Your task to perform on an android device: Open settings on Google Maps Image 0: 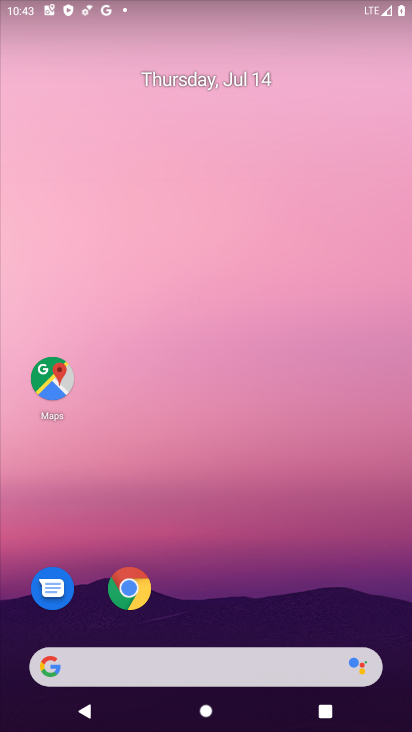
Step 0: click (60, 379)
Your task to perform on an android device: Open settings on Google Maps Image 1: 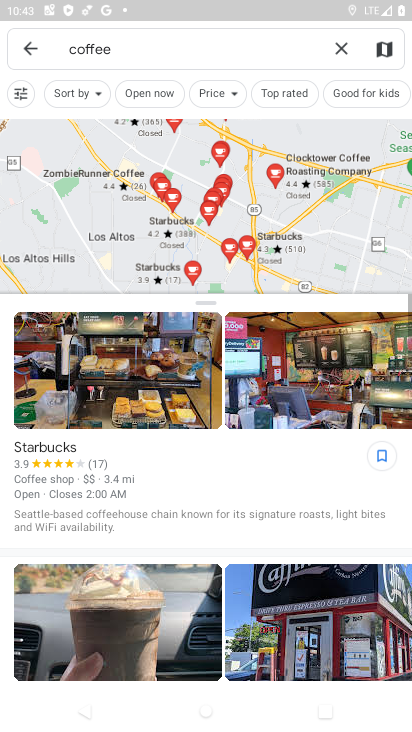
Step 1: click (29, 48)
Your task to perform on an android device: Open settings on Google Maps Image 2: 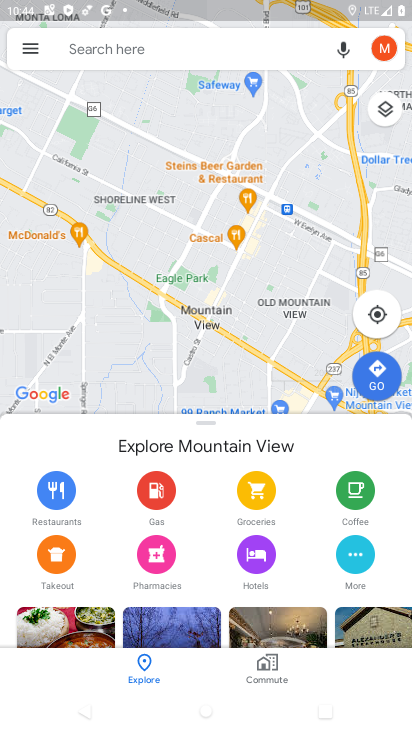
Step 2: click (29, 49)
Your task to perform on an android device: Open settings on Google Maps Image 3: 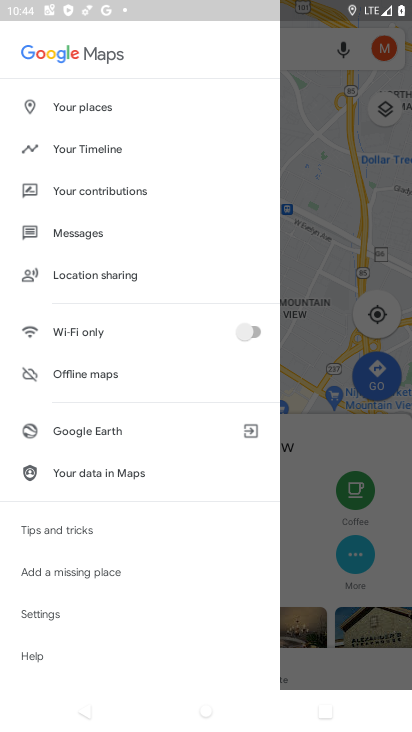
Step 3: click (61, 616)
Your task to perform on an android device: Open settings on Google Maps Image 4: 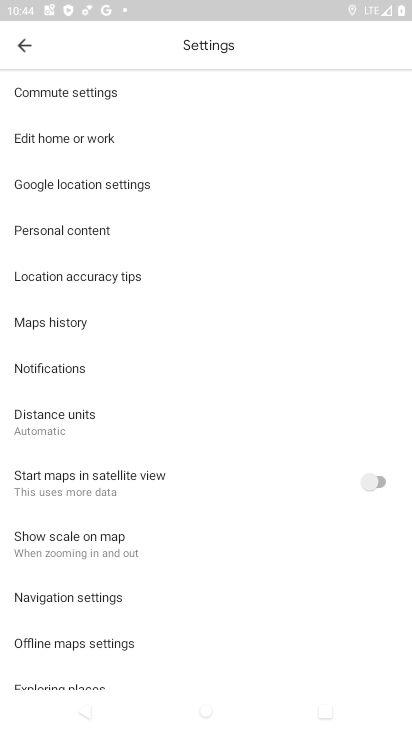
Step 4: task complete